Your task to perform on an android device: Go to network settings Image 0: 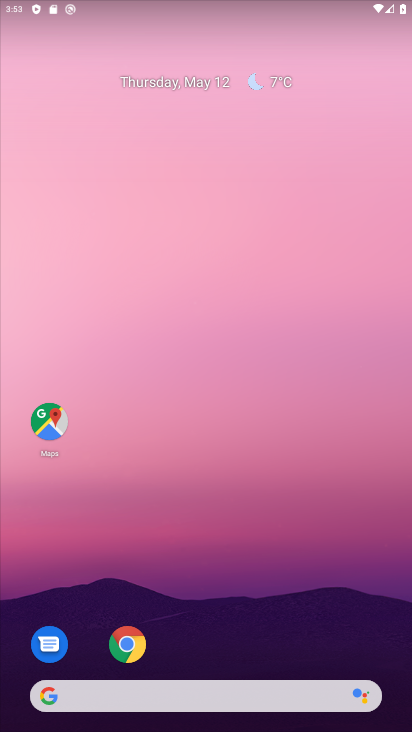
Step 0: drag from (254, 598) to (241, 63)
Your task to perform on an android device: Go to network settings Image 1: 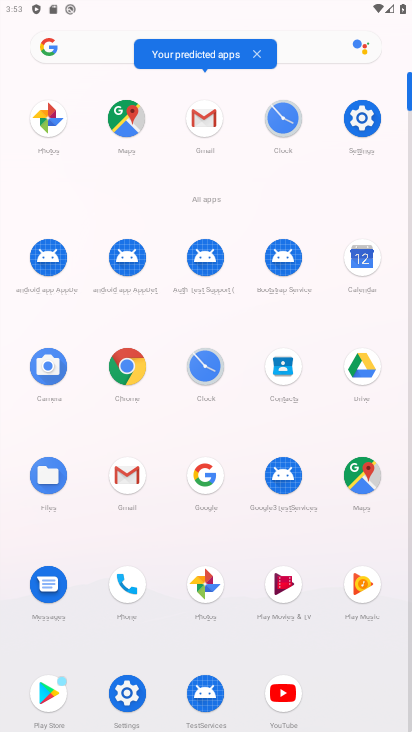
Step 1: click (364, 121)
Your task to perform on an android device: Go to network settings Image 2: 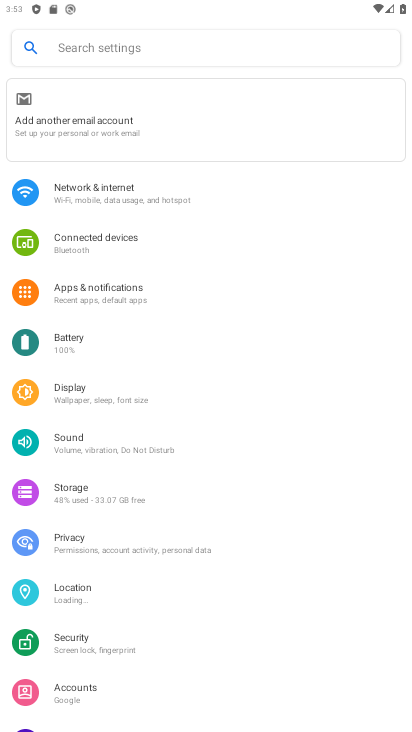
Step 2: click (135, 188)
Your task to perform on an android device: Go to network settings Image 3: 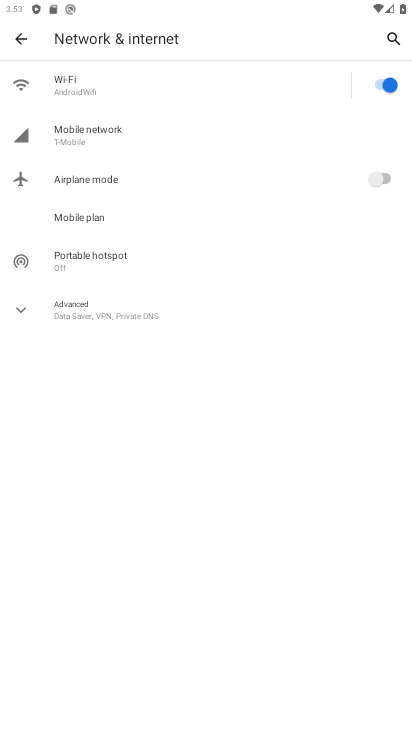
Step 3: task complete